Your task to perform on an android device: all mails in gmail Image 0: 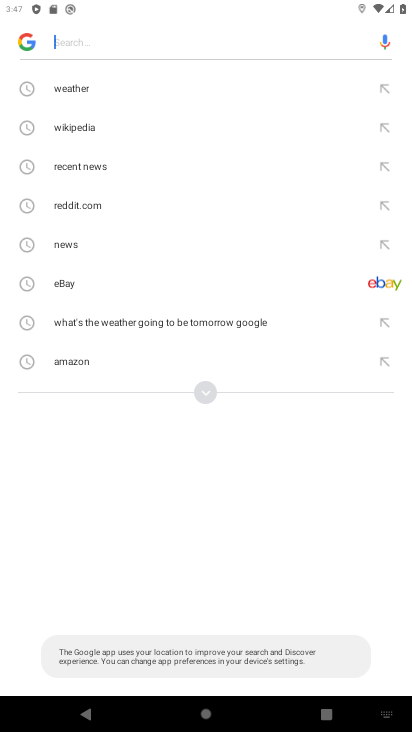
Step 0: press home button
Your task to perform on an android device: all mails in gmail Image 1: 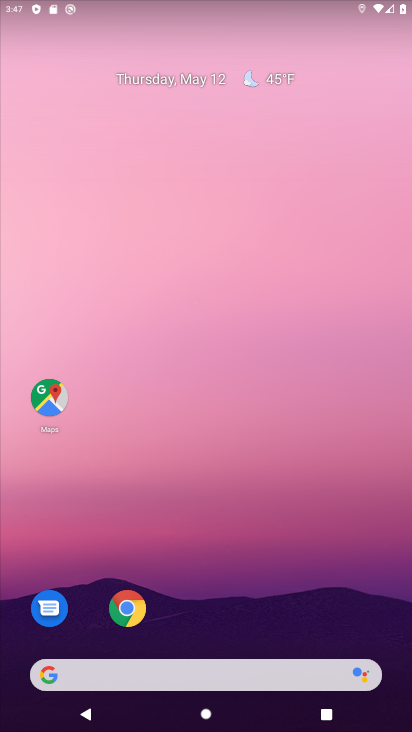
Step 1: drag from (200, 592) to (167, 42)
Your task to perform on an android device: all mails in gmail Image 2: 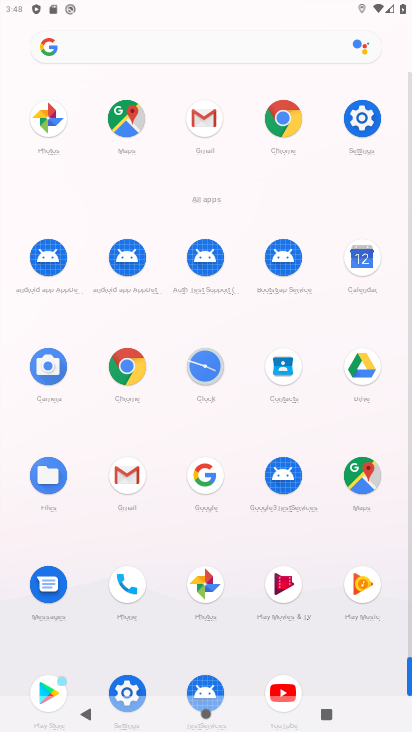
Step 2: click (115, 471)
Your task to perform on an android device: all mails in gmail Image 3: 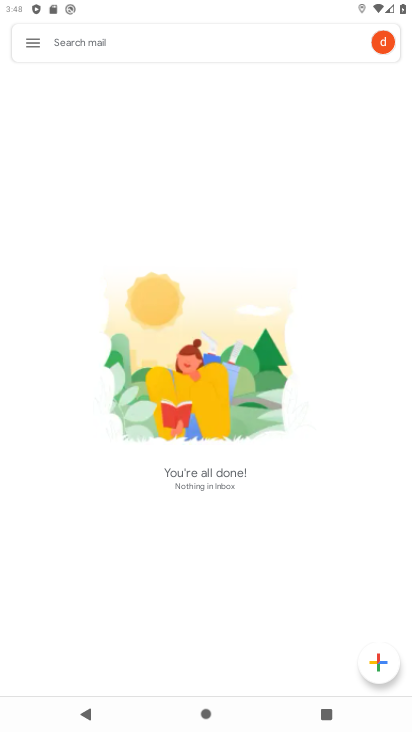
Step 3: click (30, 45)
Your task to perform on an android device: all mails in gmail Image 4: 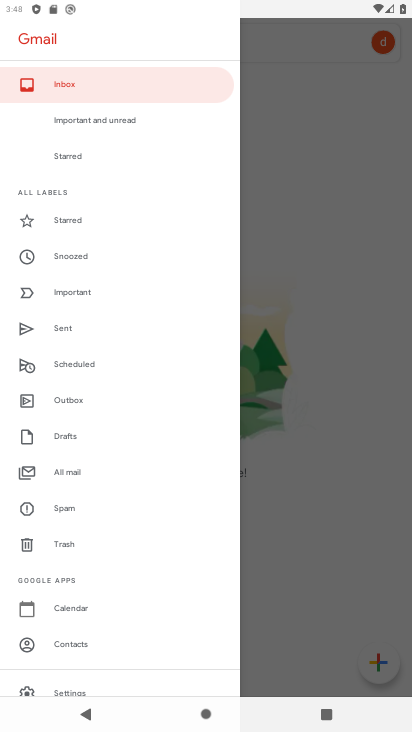
Step 4: click (60, 473)
Your task to perform on an android device: all mails in gmail Image 5: 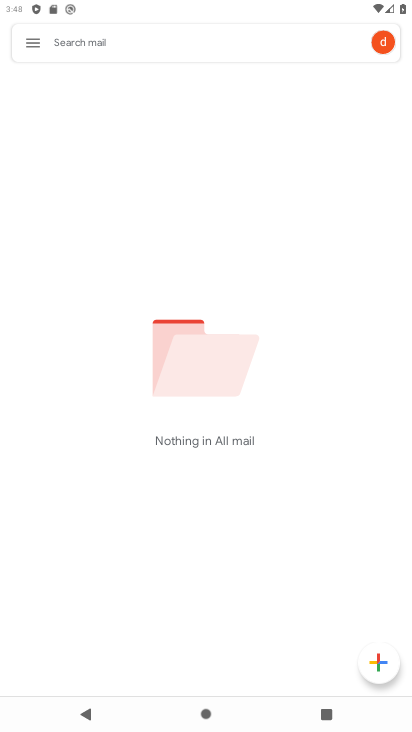
Step 5: task complete